Your task to perform on an android device: Do I have any events tomorrow? Image 0: 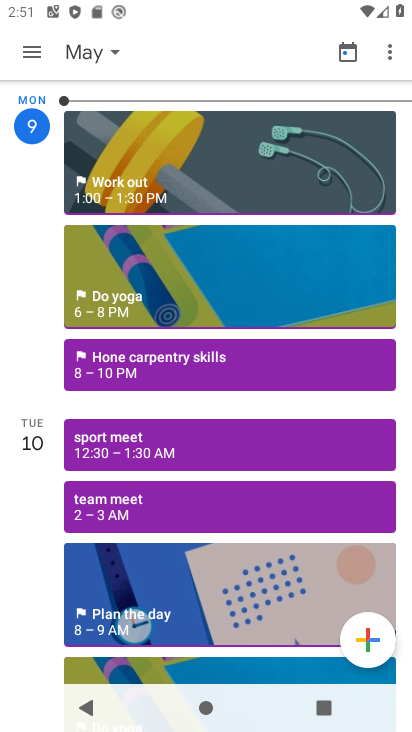
Step 0: drag from (177, 553) to (232, 190)
Your task to perform on an android device: Do I have any events tomorrow? Image 1: 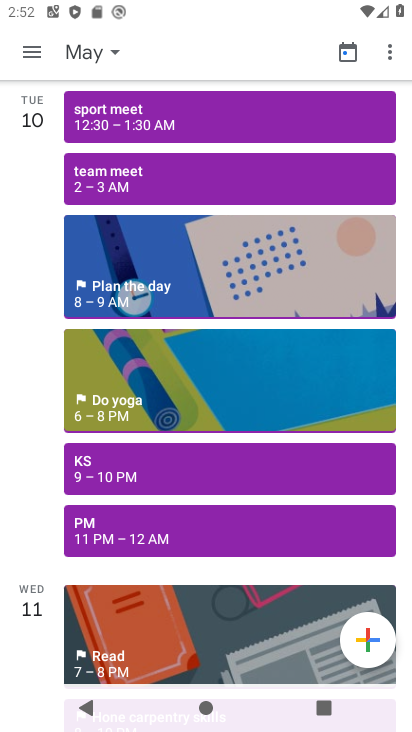
Step 1: click (31, 44)
Your task to perform on an android device: Do I have any events tomorrow? Image 2: 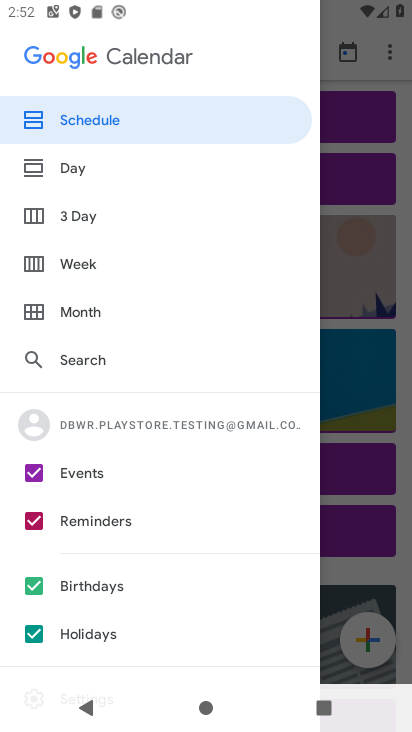
Step 2: click (37, 517)
Your task to perform on an android device: Do I have any events tomorrow? Image 3: 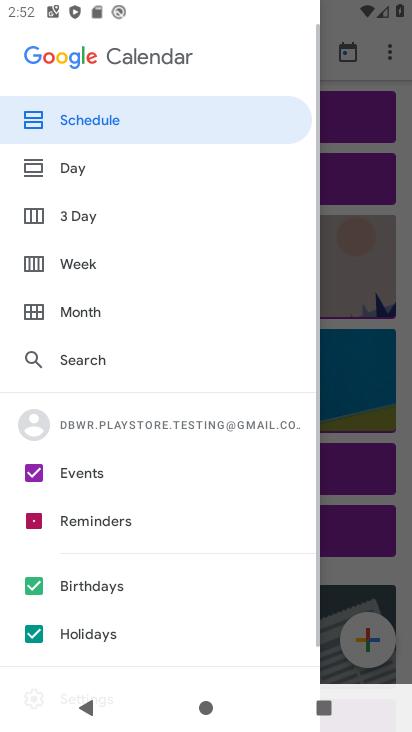
Step 3: click (33, 589)
Your task to perform on an android device: Do I have any events tomorrow? Image 4: 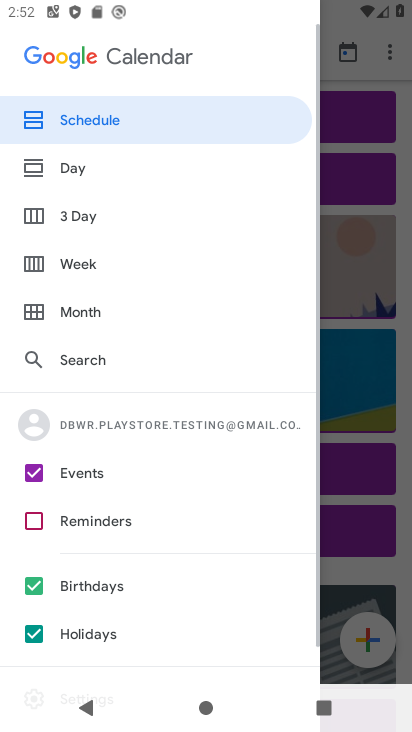
Step 4: click (34, 631)
Your task to perform on an android device: Do I have any events tomorrow? Image 5: 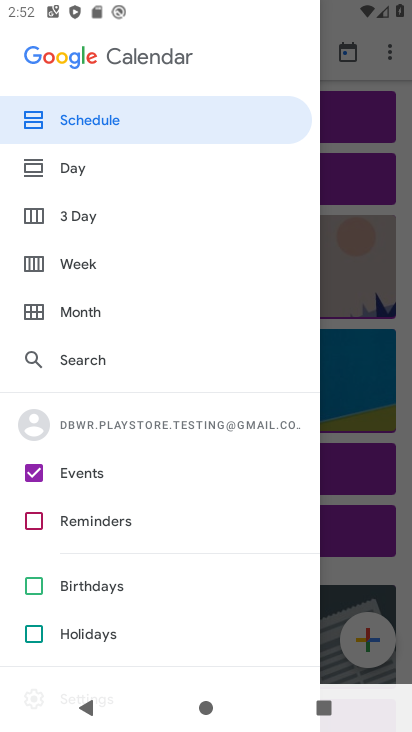
Step 5: click (374, 344)
Your task to perform on an android device: Do I have any events tomorrow? Image 6: 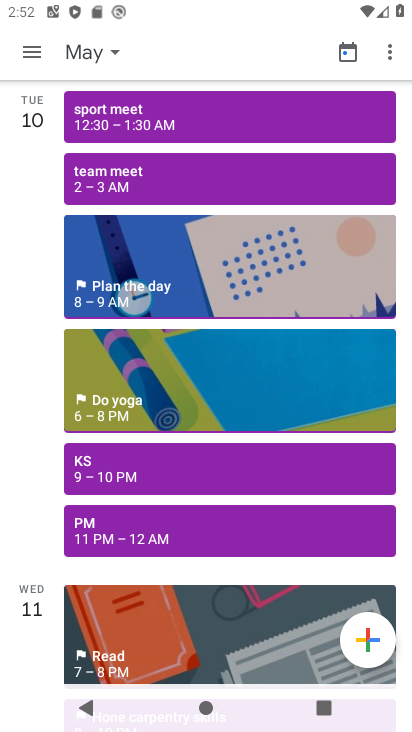
Step 6: task complete